Your task to perform on an android device: Go to Google Image 0: 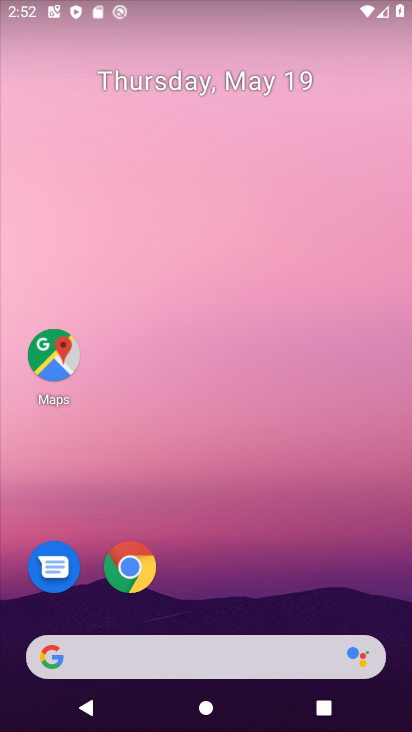
Step 0: drag from (239, 729) to (267, 10)
Your task to perform on an android device: Go to Google Image 1: 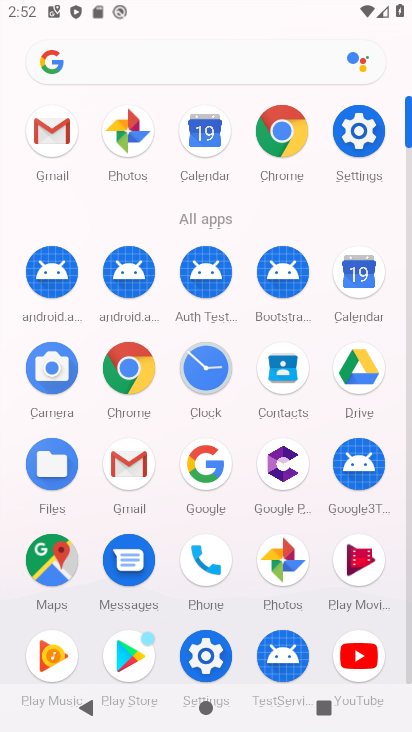
Step 1: click (206, 445)
Your task to perform on an android device: Go to Google Image 2: 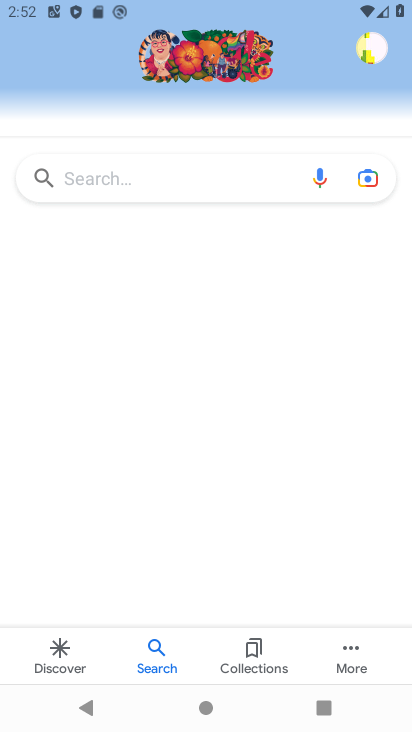
Step 2: task complete